Your task to perform on an android device: add a contact in the contacts app Image 0: 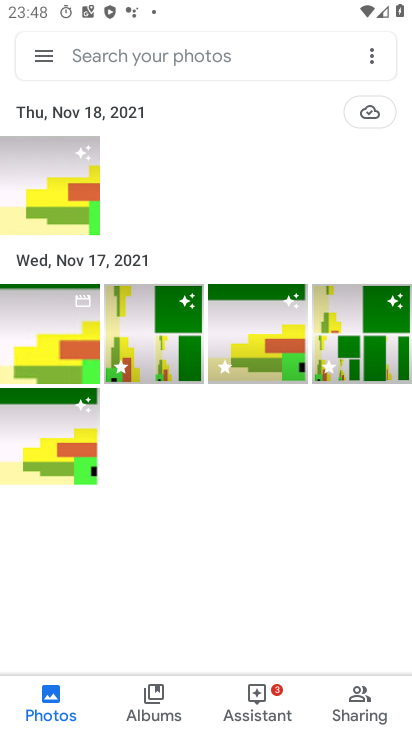
Step 0: press home button
Your task to perform on an android device: add a contact in the contacts app Image 1: 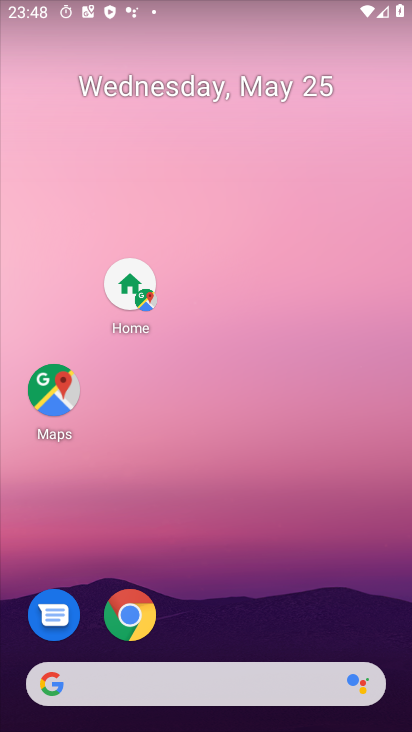
Step 1: drag from (243, 567) to (223, 180)
Your task to perform on an android device: add a contact in the contacts app Image 2: 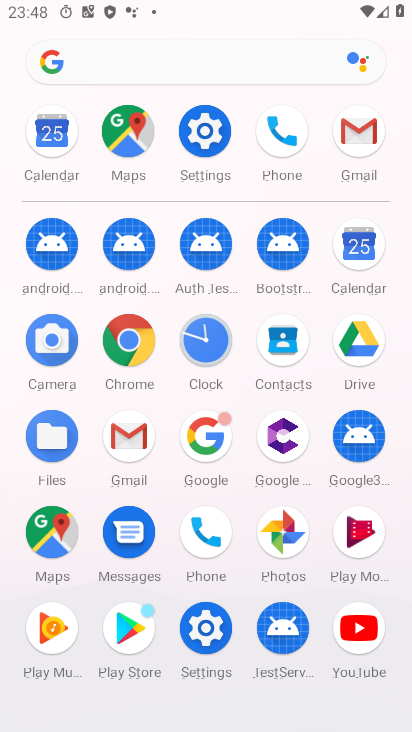
Step 2: click (287, 347)
Your task to perform on an android device: add a contact in the contacts app Image 3: 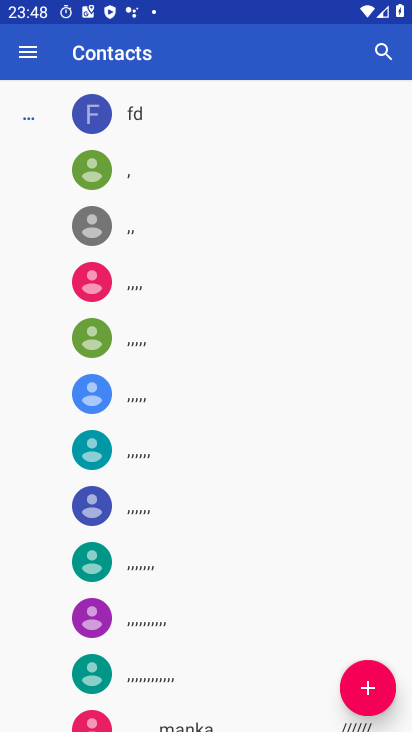
Step 3: click (361, 681)
Your task to perform on an android device: add a contact in the contacts app Image 4: 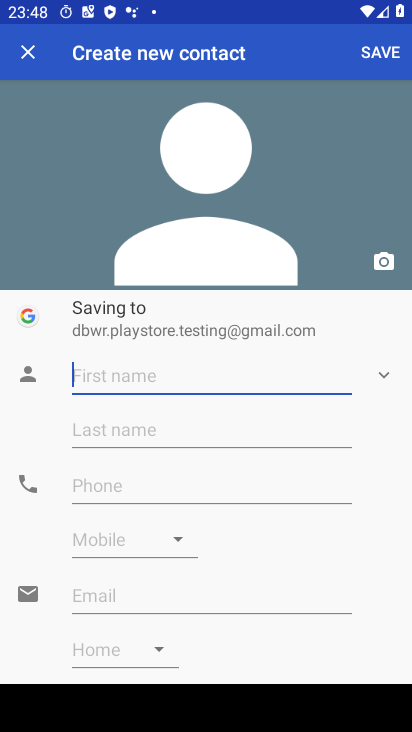
Step 4: type "vvvvhggg"
Your task to perform on an android device: add a contact in the contacts app Image 5: 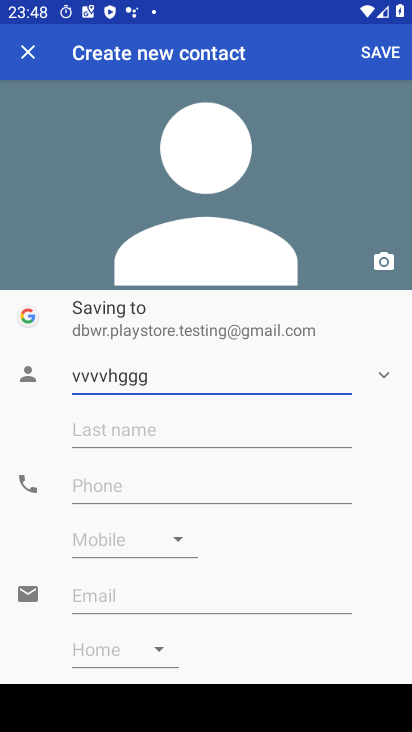
Step 5: click (153, 492)
Your task to perform on an android device: add a contact in the contacts app Image 6: 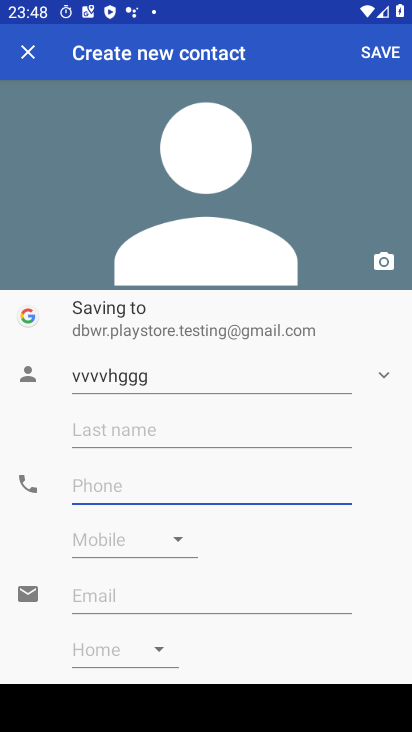
Step 6: type "6565667676"
Your task to perform on an android device: add a contact in the contacts app Image 7: 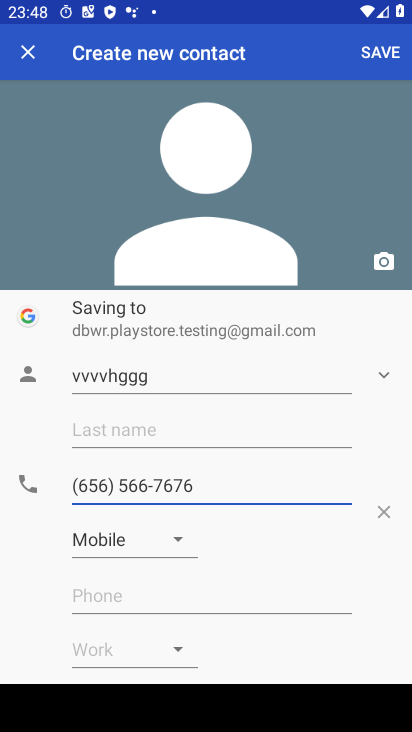
Step 7: click (384, 51)
Your task to perform on an android device: add a contact in the contacts app Image 8: 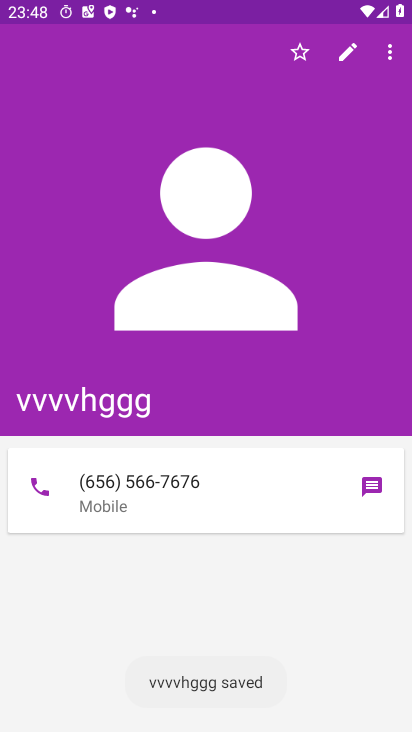
Step 8: task complete